Your task to perform on an android device: turn on airplane mode Image 0: 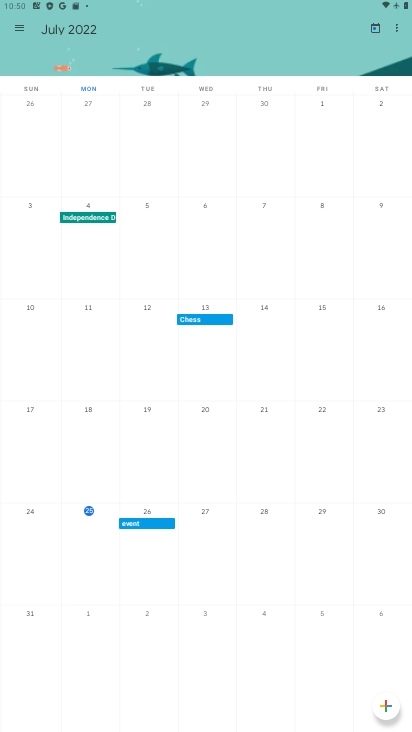
Step 0: task complete